Your task to perform on an android device: Clear the shopping cart on ebay. Image 0: 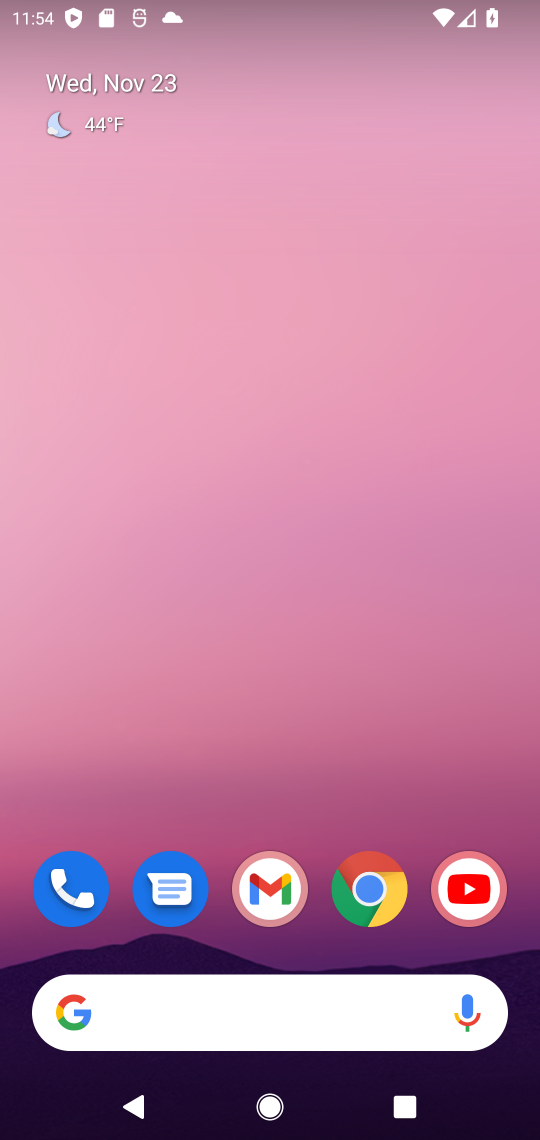
Step 0: click (377, 893)
Your task to perform on an android device: Clear the shopping cart on ebay. Image 1: 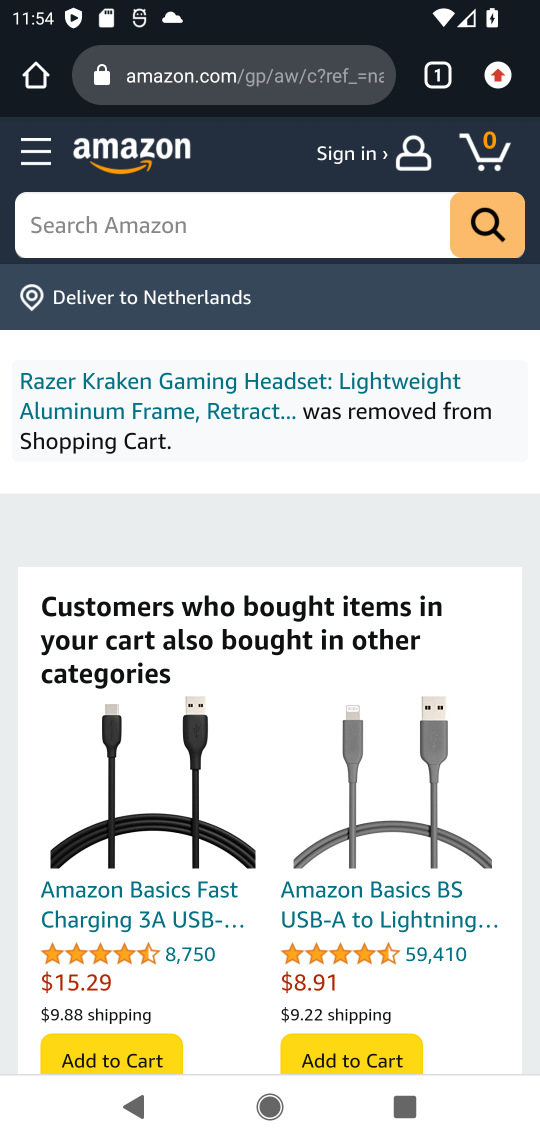
Step 1: click (188, 83)
Your task to perform on an android device: Clear the shopping cart on ebay. Image 2: 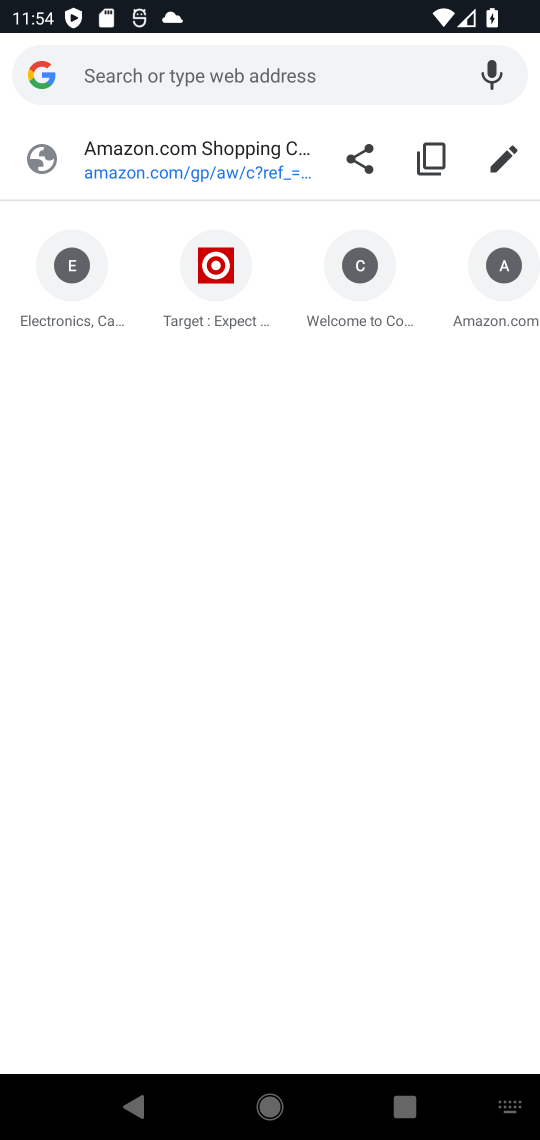
Step 2: type "ebay.com"
Your task to perform on an android device: Clear the shopping cart on ebay. Image 3: 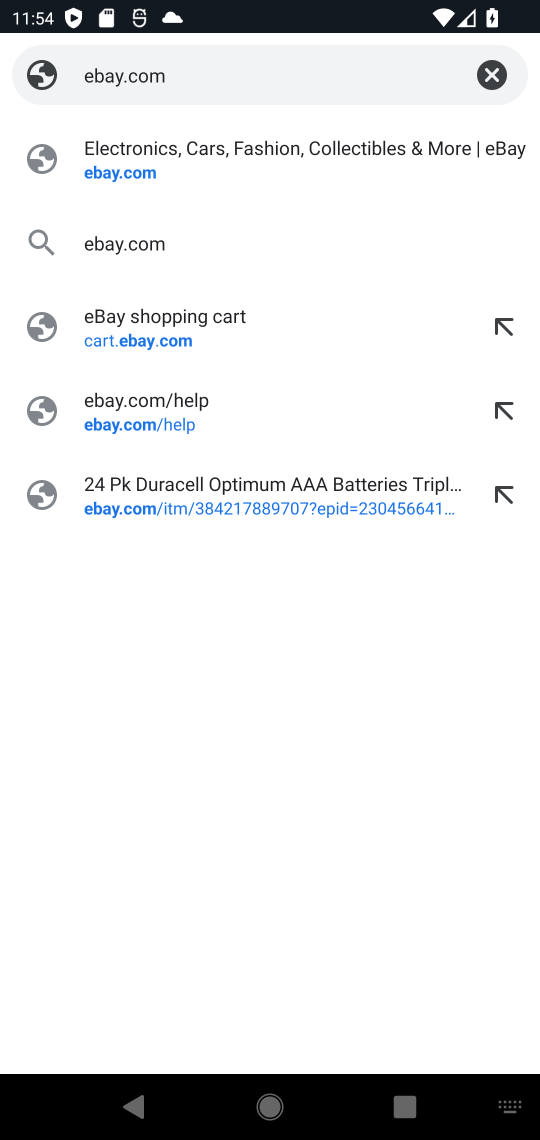
Step 3: click (105, 167)
Your task to perform on an android device: Clear the shopping cart on ebay. Image 4: 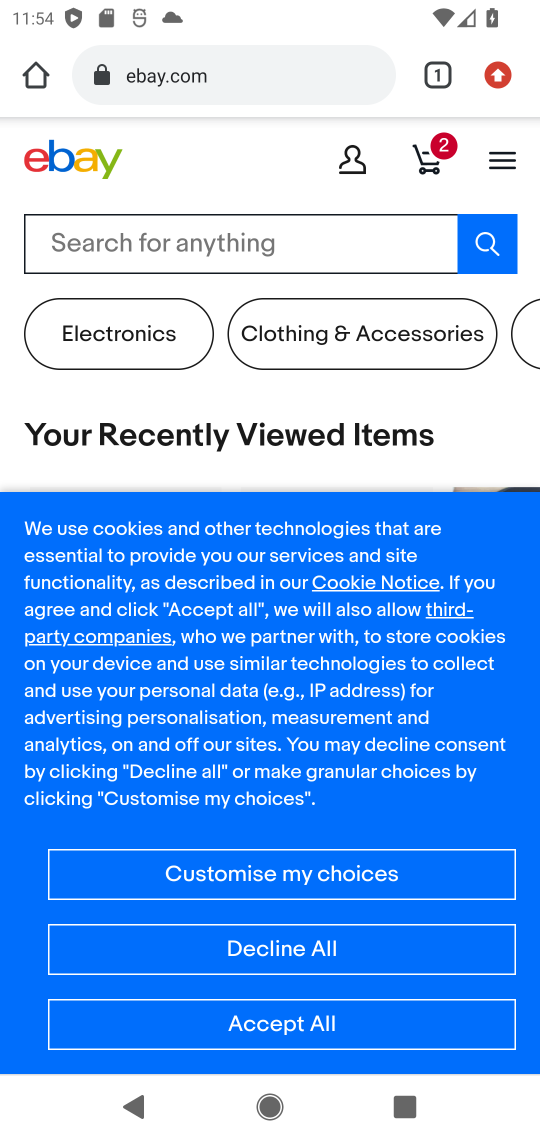
Step 4: click (424, 152)
Your task to perform on an android device: Clear the shopping cart on ebay. Image 5: 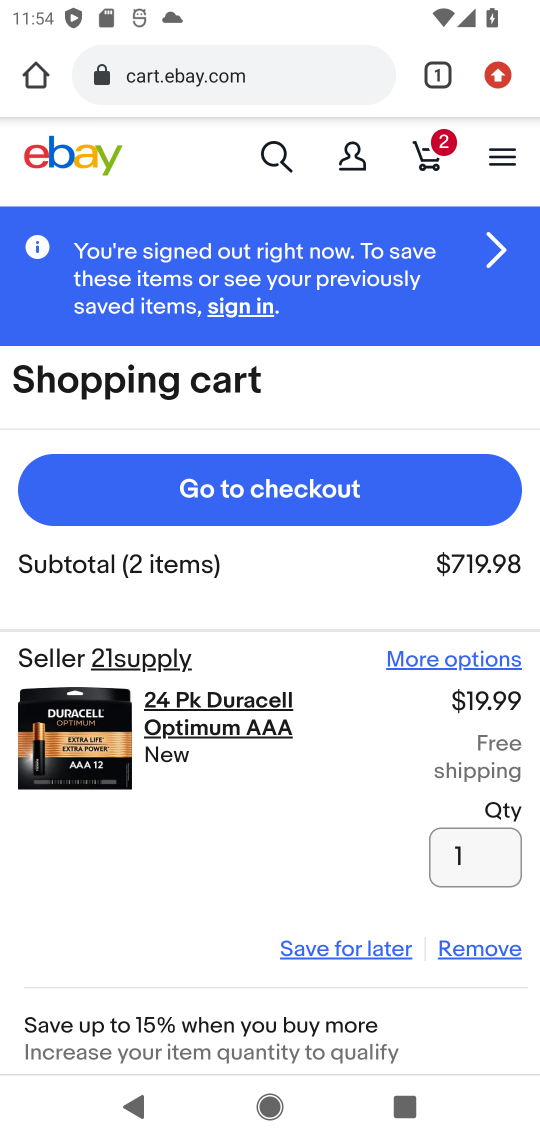
Step 5: click (481, 952)
Your task to perform on an android device: Clear the shopping cart on ebay. Image 6: 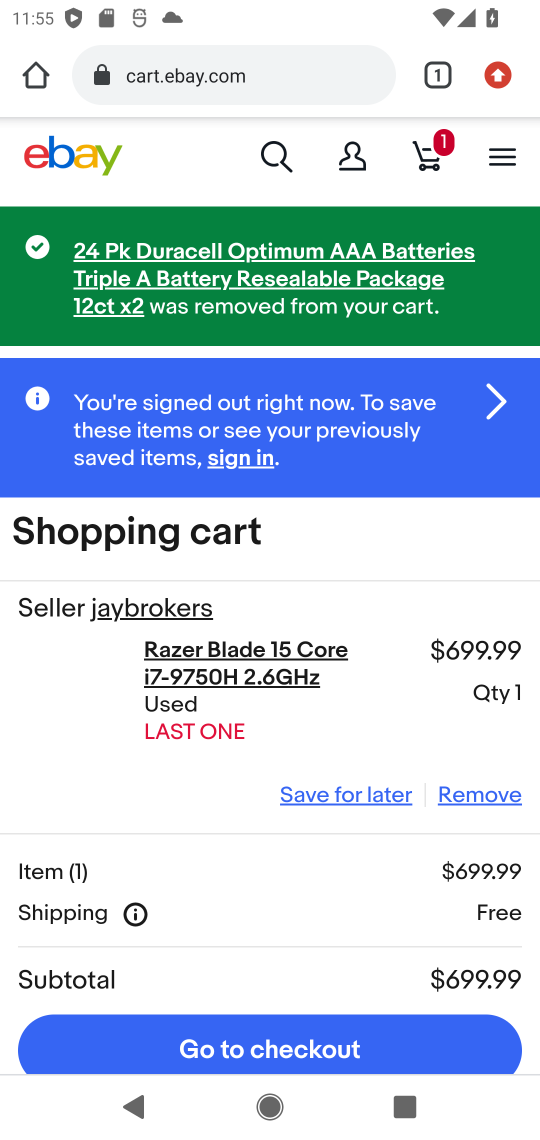
Step 6: click (463, 804)
Your task to perform on an android device: Clear the shopping cart on ebay. Image 7: 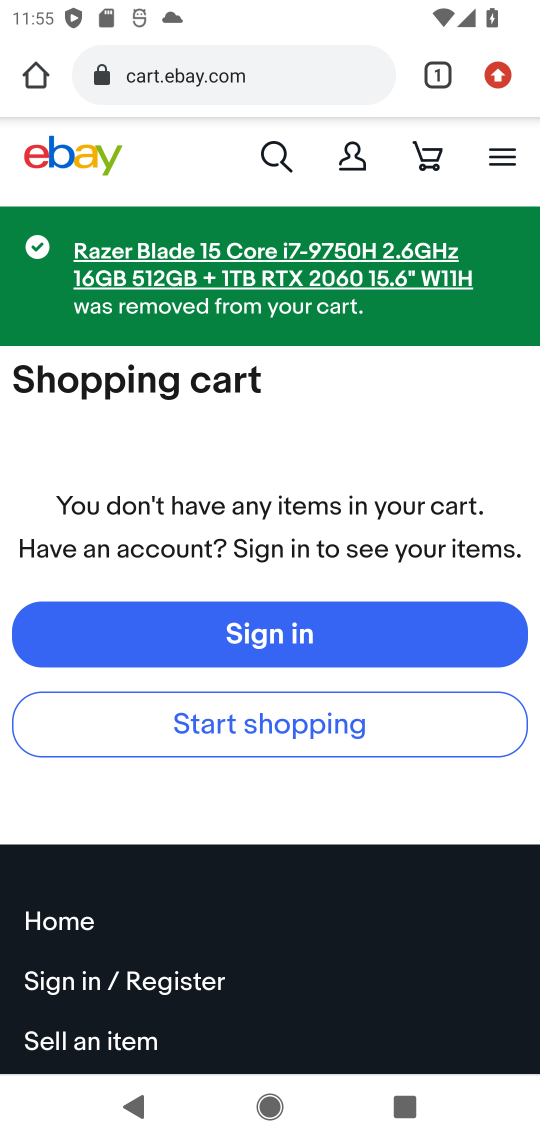
Step 7: task complete